Your task to perform on an android device: When is my next appointment? Image 0: 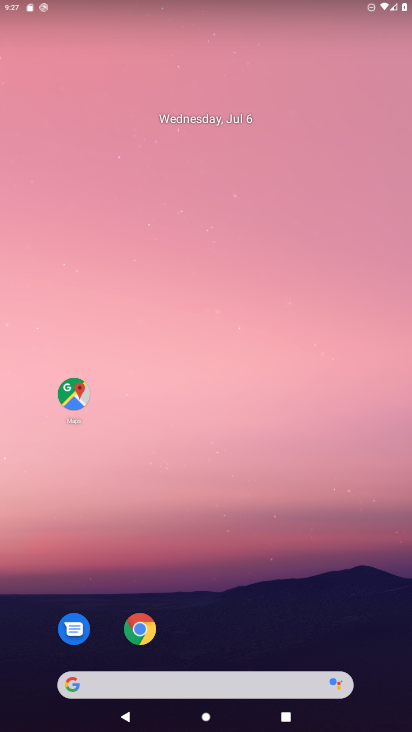
Step 0: drag from (261, 667) to (350, 547)
Your task to perform on an android device: When is my next appointment? Image 1: 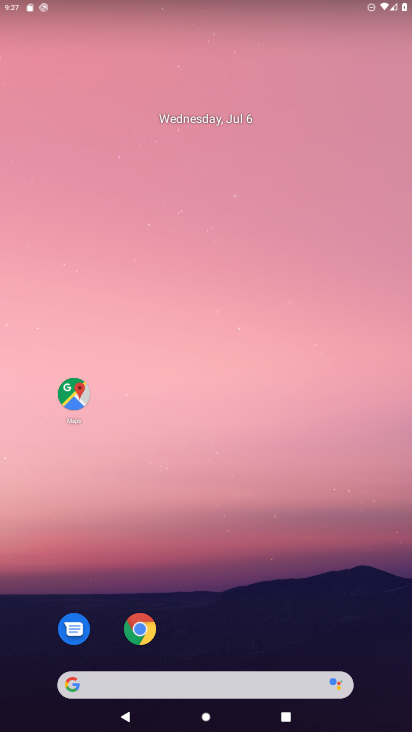
Step 1: drag from (224, 688) to (213, 15)
Your task to perform on an android device: When is my next appointment? Image 2: 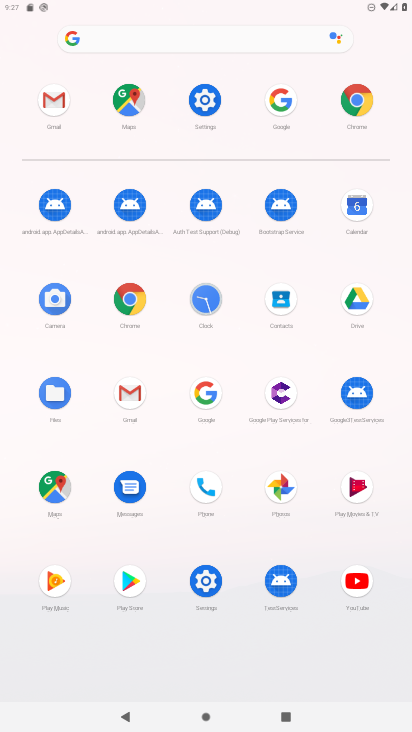
Step 2: click (129, 303)
Your task to perform on an android device: When is my next appointment? Image 3: 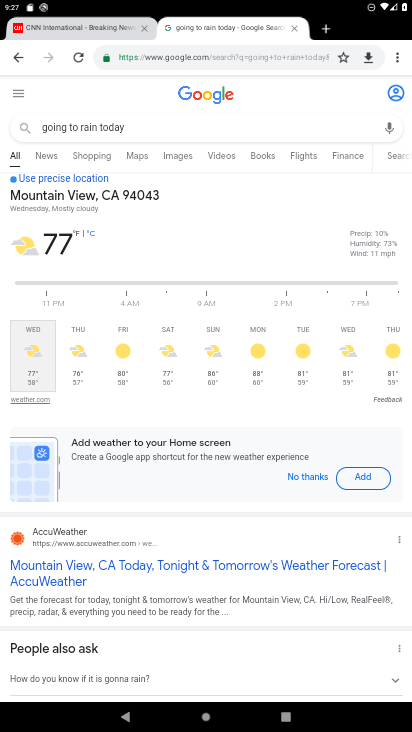
Step 3: press home button
Your task to perform on an android device: When is my next appointment? Image 4: 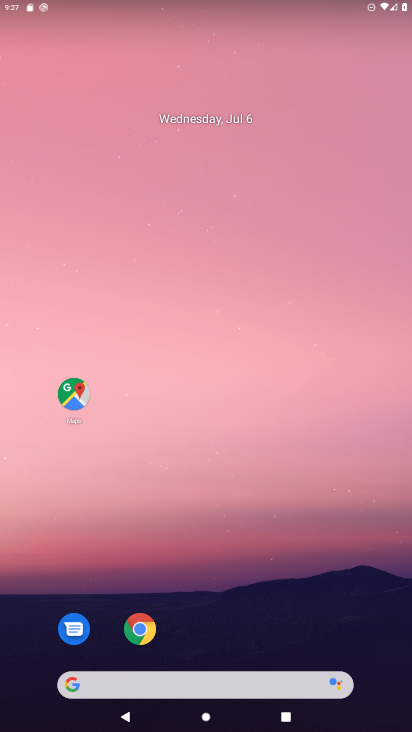
Step 4: drag from (204, 627) to (290, 15)
Your task to perform on an android device: When is my next appointment? Image 5: 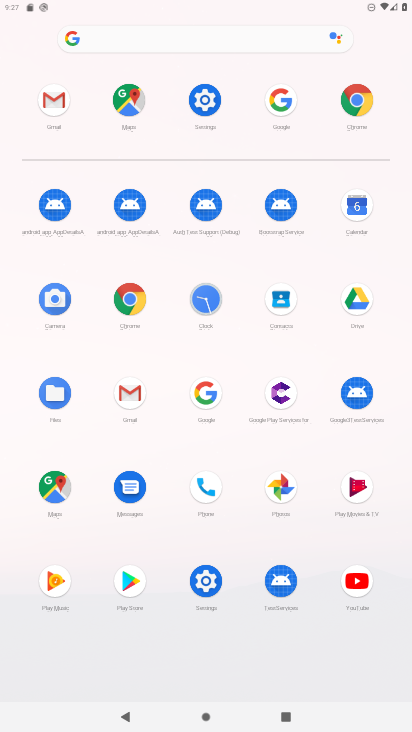
Step 5: click (365, 209)
Your task to perform on an android device: When is my next appointment? Image 6: 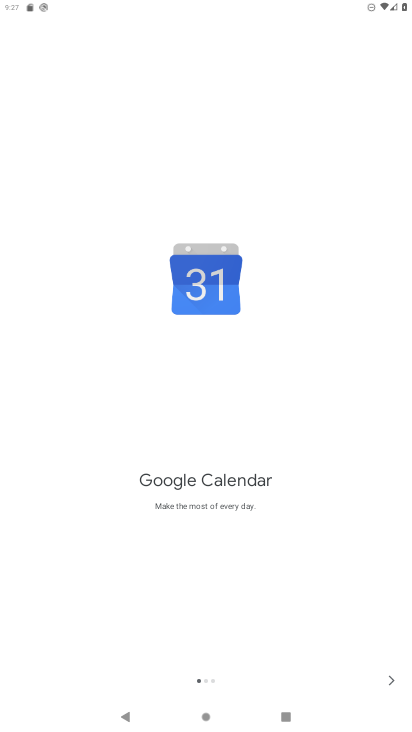
Step 6: click (392, 677)
Your task to perform on an android device: When is my next appointment? Image 7: 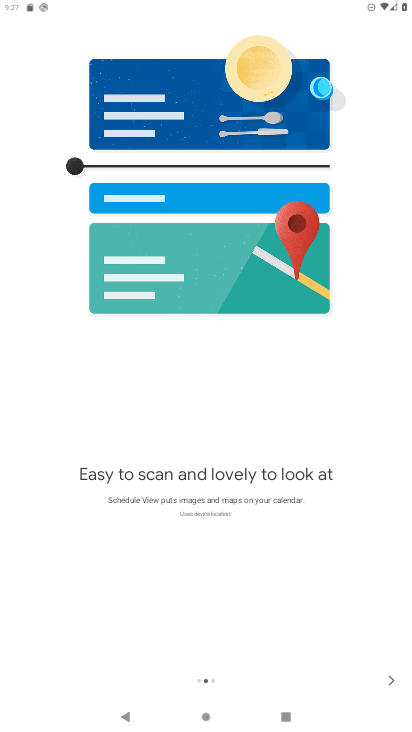
Step 7: click (392, 677)
Your task to perform on an android device: When is my next appointment? Image 8: 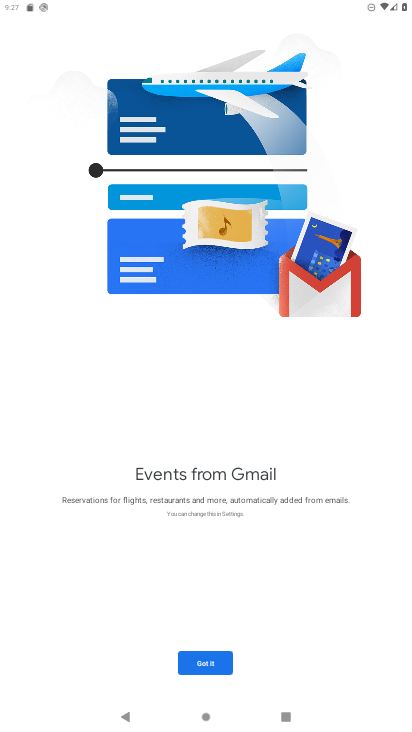
Step 8: click (221, 662)
Your task to perform on an android device: When is my next appointment? Image 9: 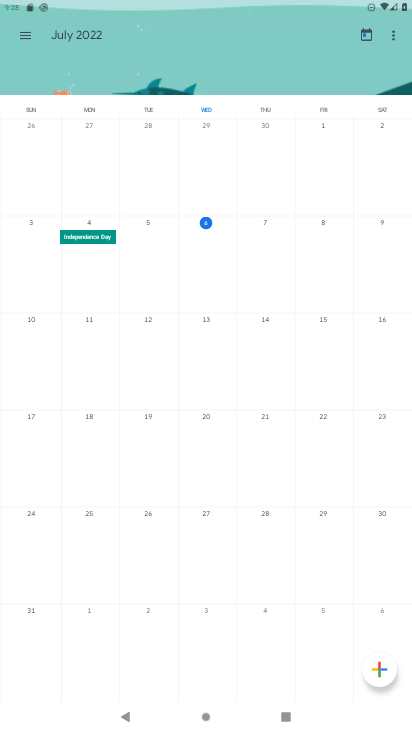
Step 9: click (259, 223)
Your task to perform on an android device: When is my next appointment? Image 10: 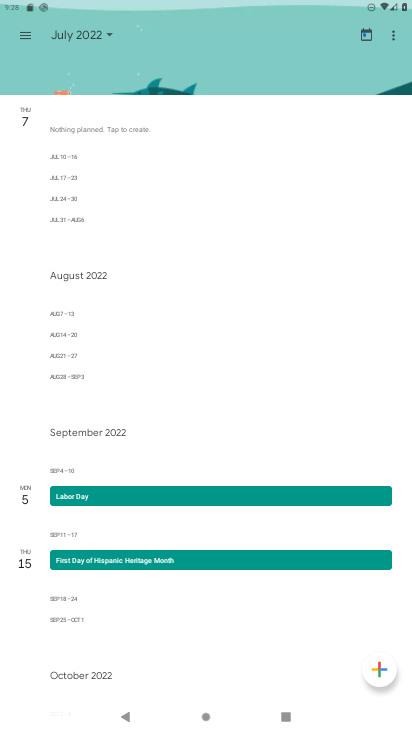
Step 10: task complete